Your task to perform on an android device: Open the stopwatch Image 0: 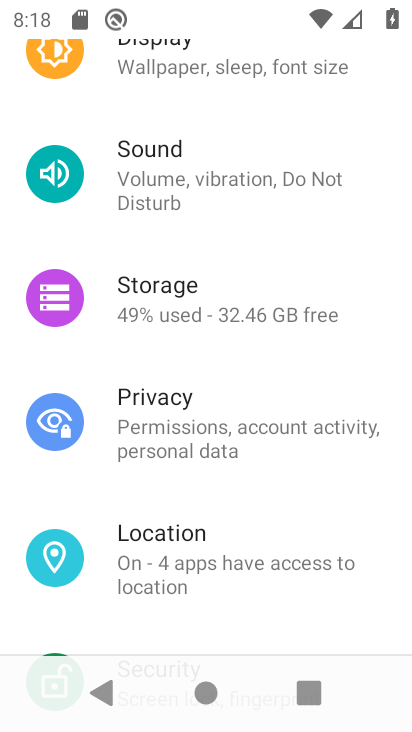
Step 0: press home button
Your task to perform on an android device: Open the stopwatch Image 1: 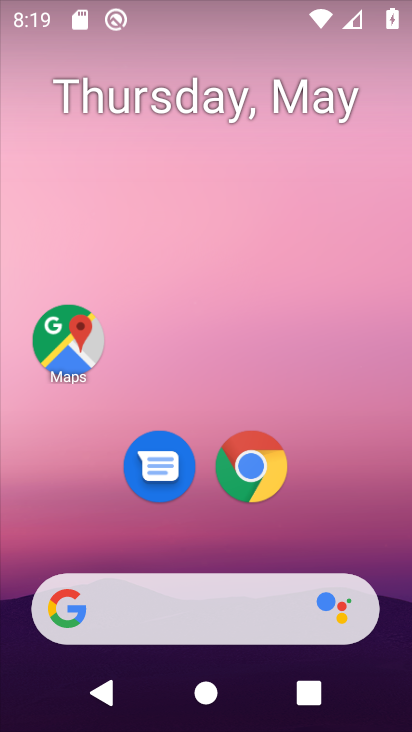
Step 1: drag from (370, 545) to (346, 5)
Your task to perform on an android device: Open the stopwatch Image 2: 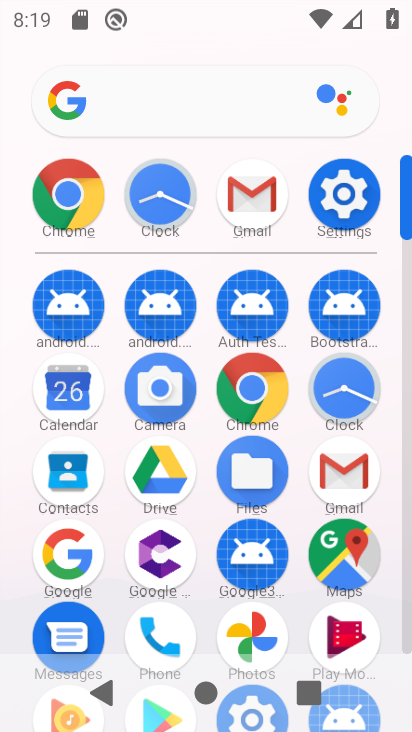
Step 2: click (122, 206)
Your task to perform on an android device: Open the stopwatch Image 3: 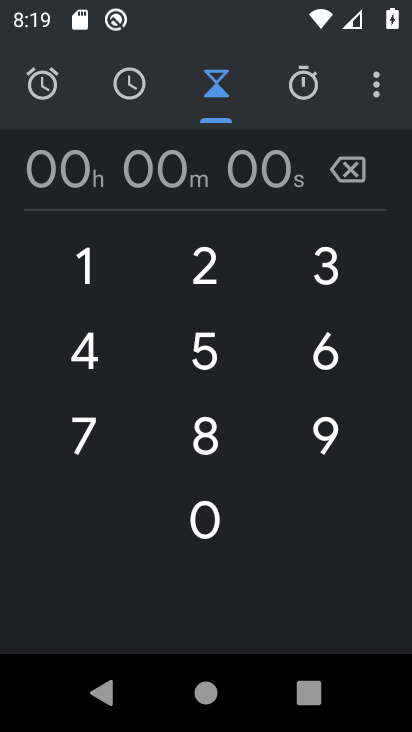
Step 3: click (292, 94)
Your task to perform on an android device: Open the stopwatch Image 4: 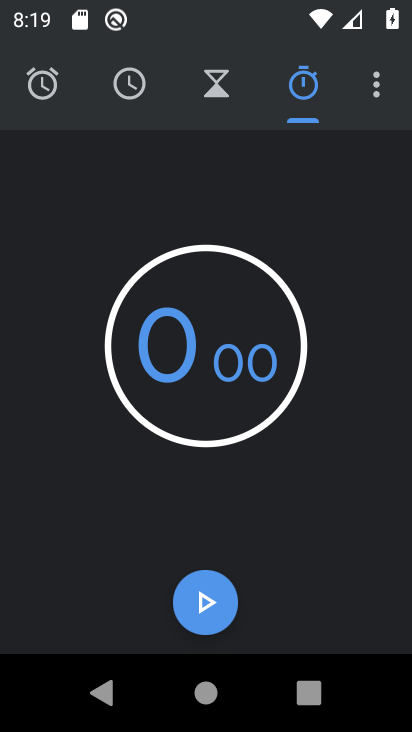
Step 4: task complete